Your task to perform on an android device: toggle pop-ups in chrome Image 0: 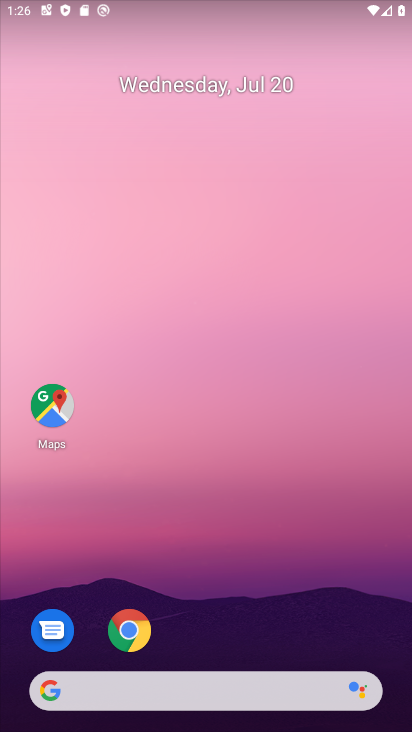
Step 0: drag from (265, 618) to (209, 94)
Your task to perform on an android device: toggle pop-ups in chrome Image 1: 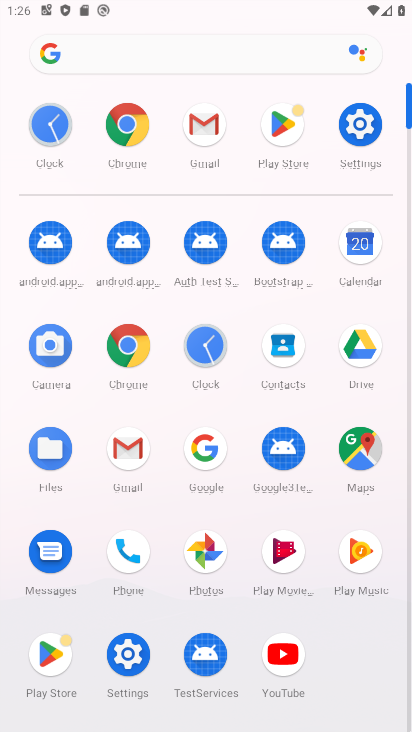
Step 1: click (125, 125)
Your task to perform on an android device: toggle pop-ups in chrome Image 2: 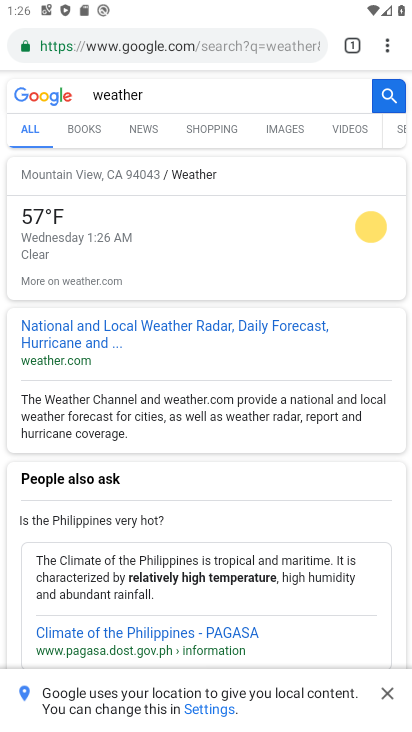
Step 2: drag from (387, 43) to (234, 554)
Your task to perform on an android device: toggle pop-ups in chrome Image 3: 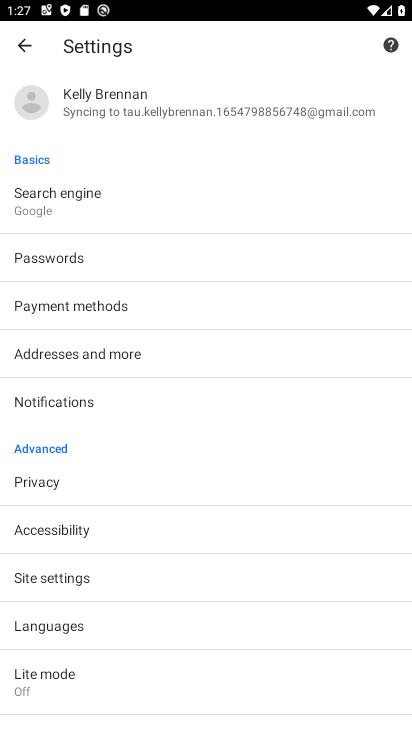
Step 3: click (61, 570)
Your task to perform on an android device: toggle pop-ups in chrome Image 4: 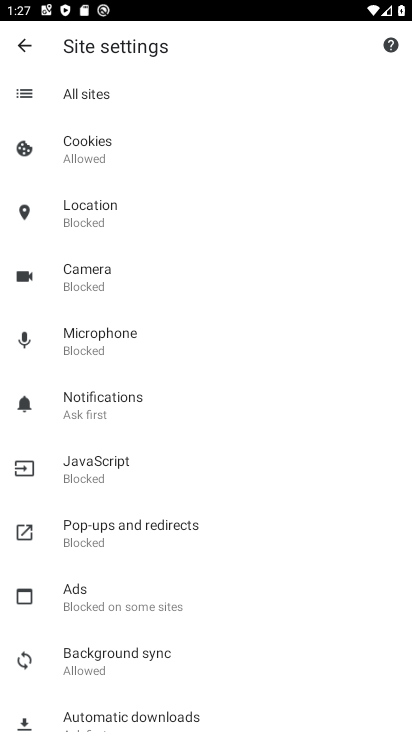
Step 4: click (118, 526)
Your task to perform on an android device: toggle pop-ups in chrome Image 5: 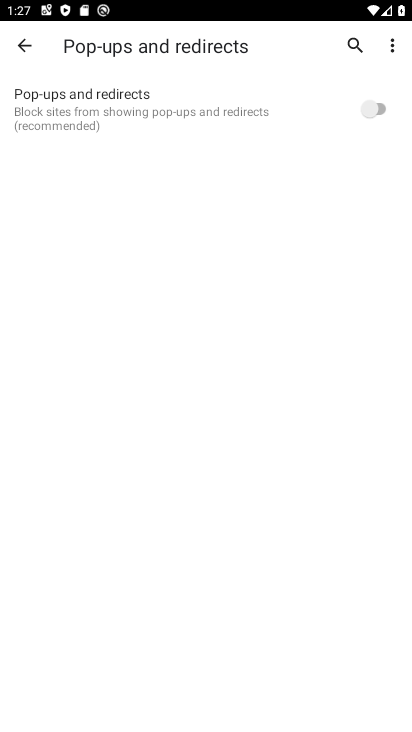
Step 5: click (374, 108)
Your task to perform on an android device: toggle pop-ups in chrome Image 6: 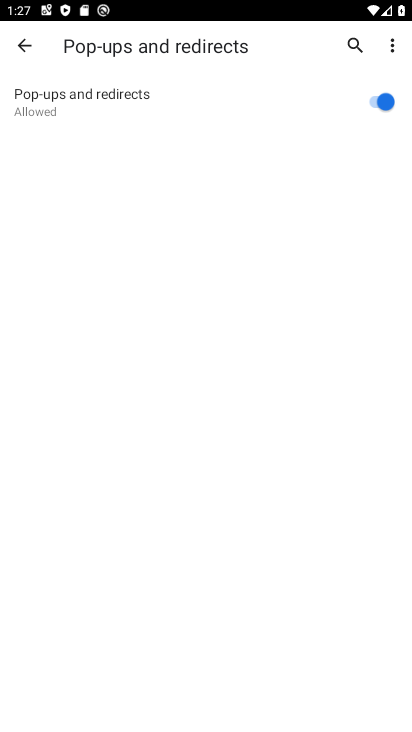
Step 6: task complete